Your task to perform on an android device: Search for flights from Chicago to London Image 0: 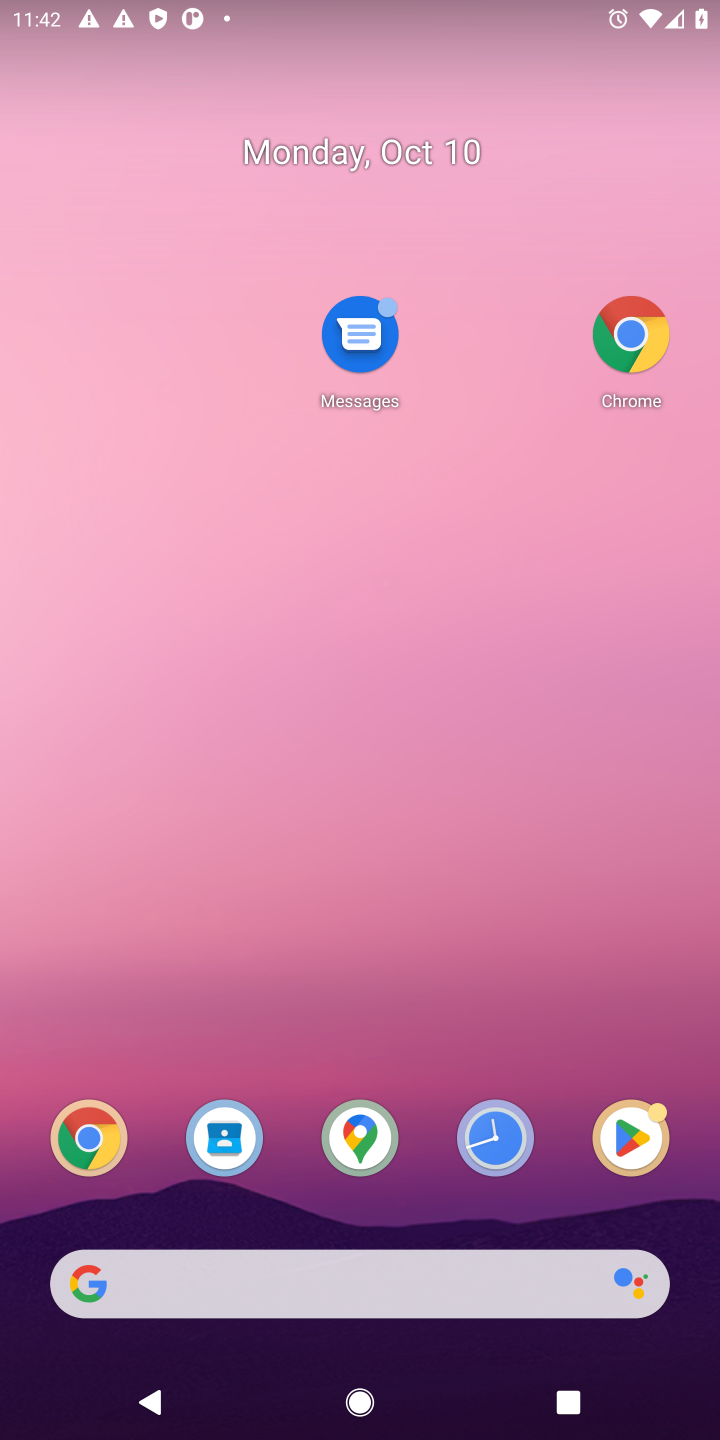
Step 0: click (621, 348)
Your task to perform on an android device: Search for flights from Chicago to London Image 1: 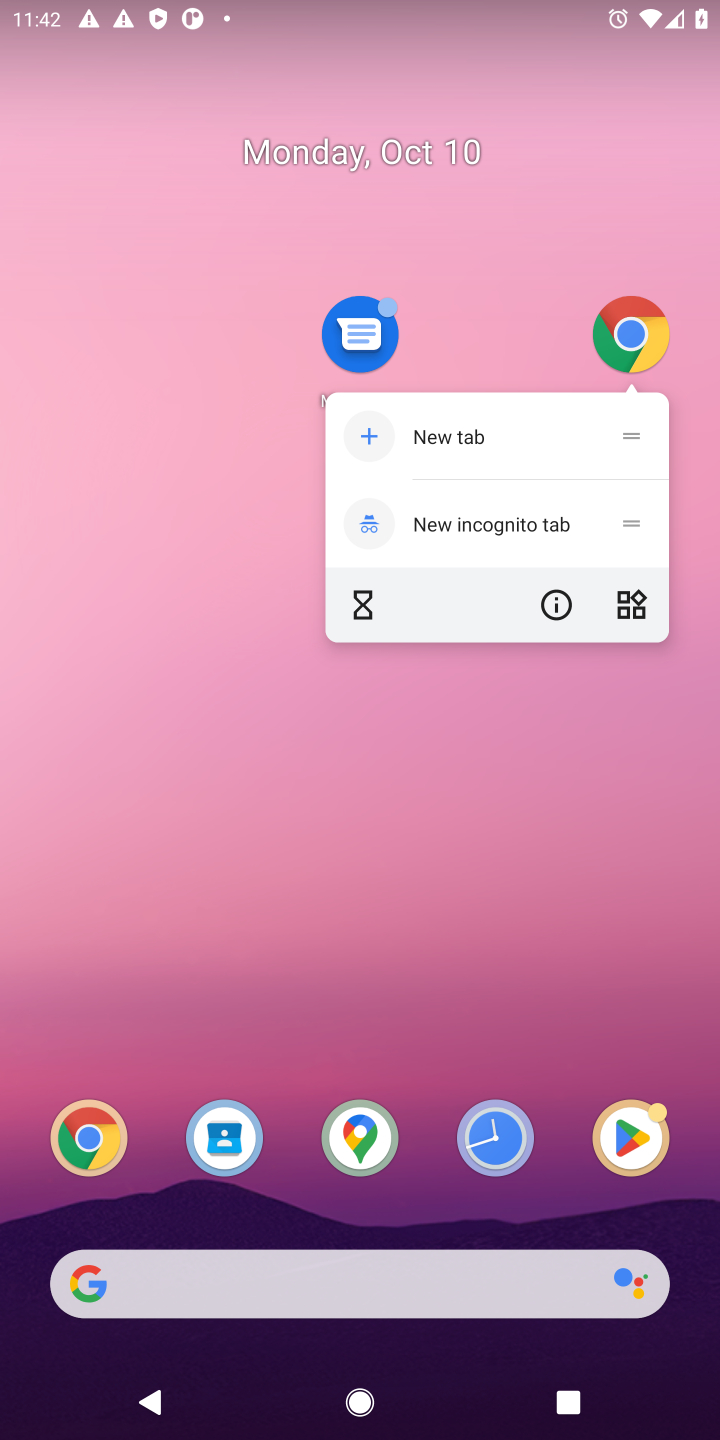
Step 1: click (545, 901)
Your task to perform on an android device: Search for flights from Chicago to London Image 2: 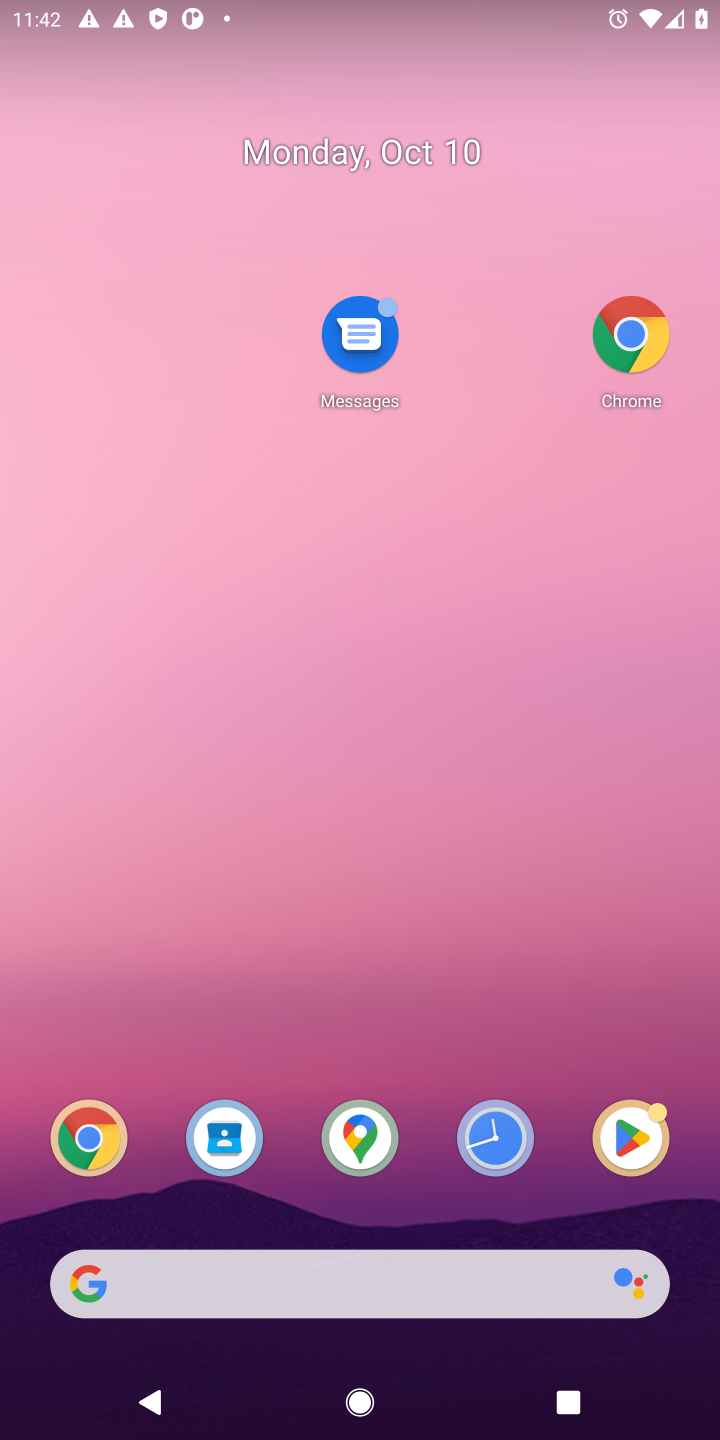
Step 2: drag from (466, 1354) to (478, 580)
Your task to perform on an android device: Search for flights from Chicago to London Image 3: 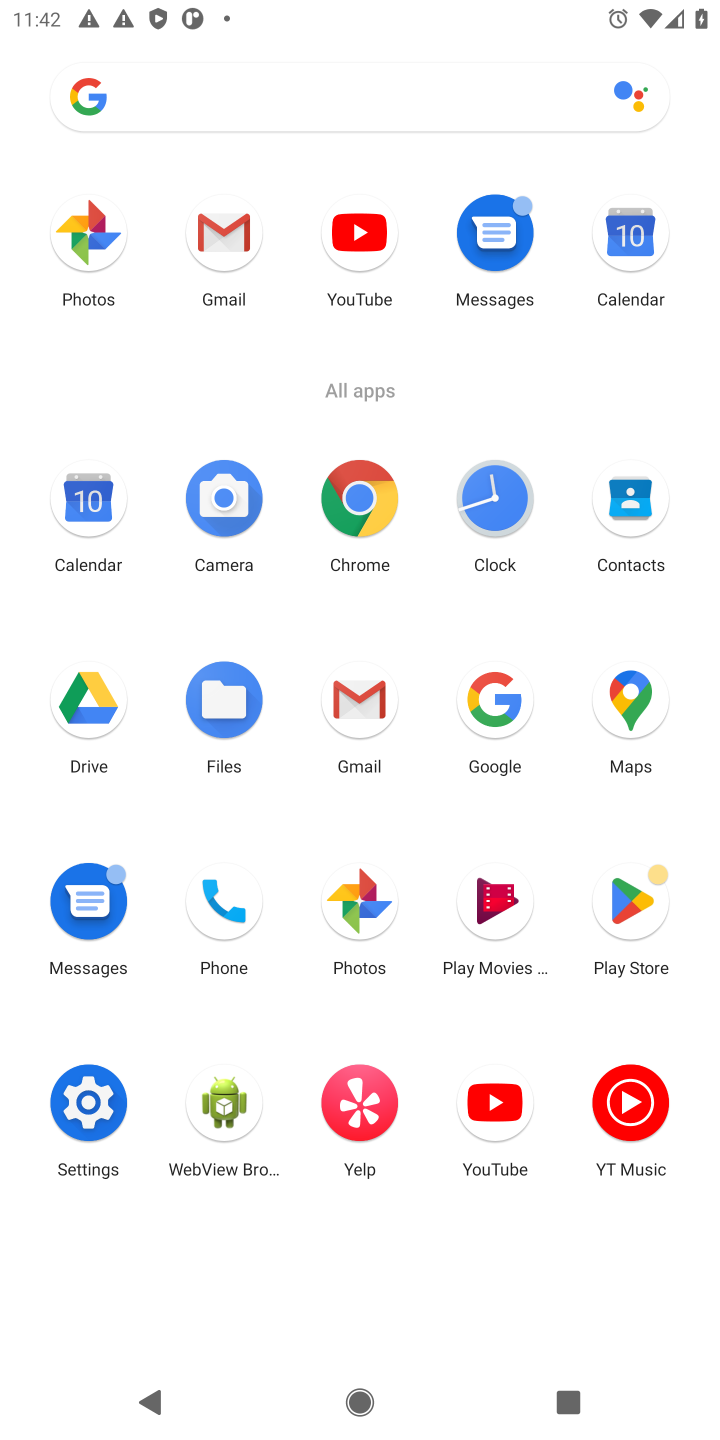
Step 3: click (369, 517)
Your task to perform on an android device: Search for flights from Chicago to London Image 4: 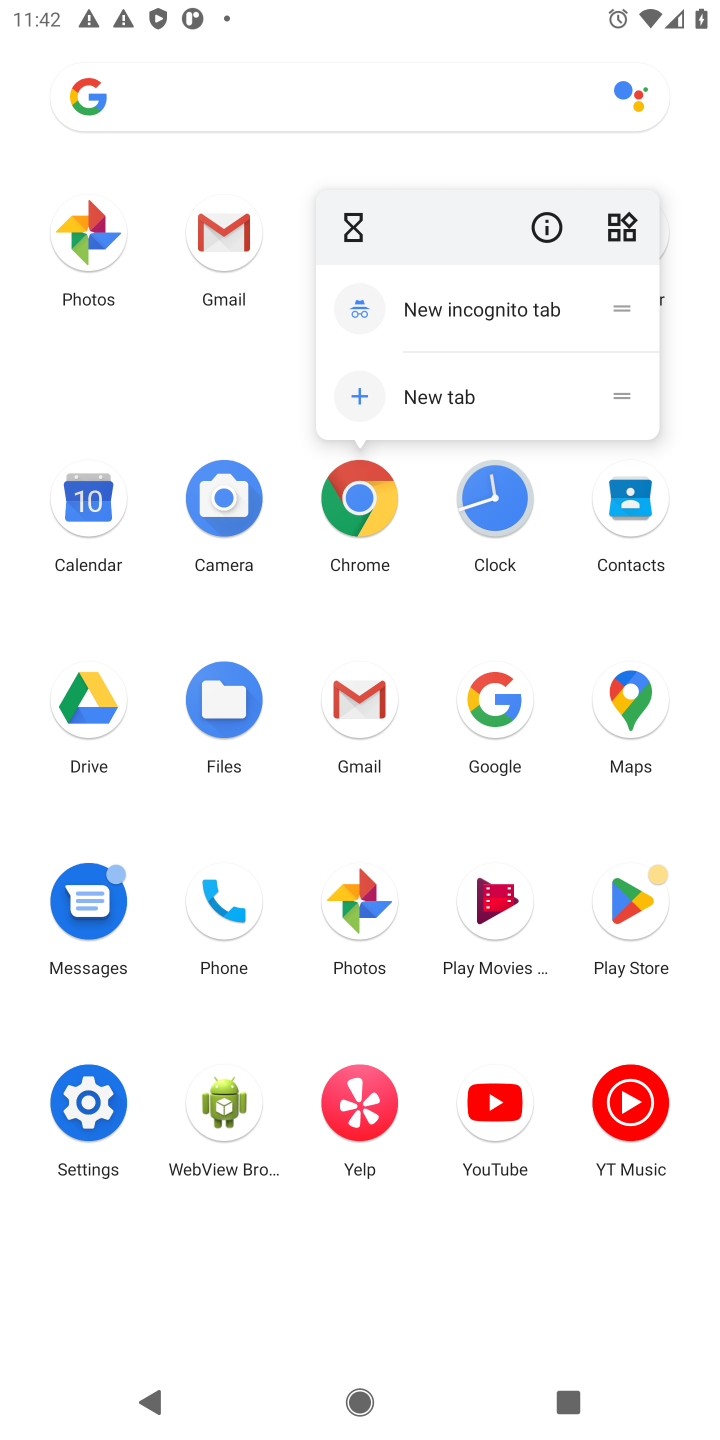
Step 4: click (353, 510)
Your task to perform on an android device: Search for flights from Chicago to London Image 5: 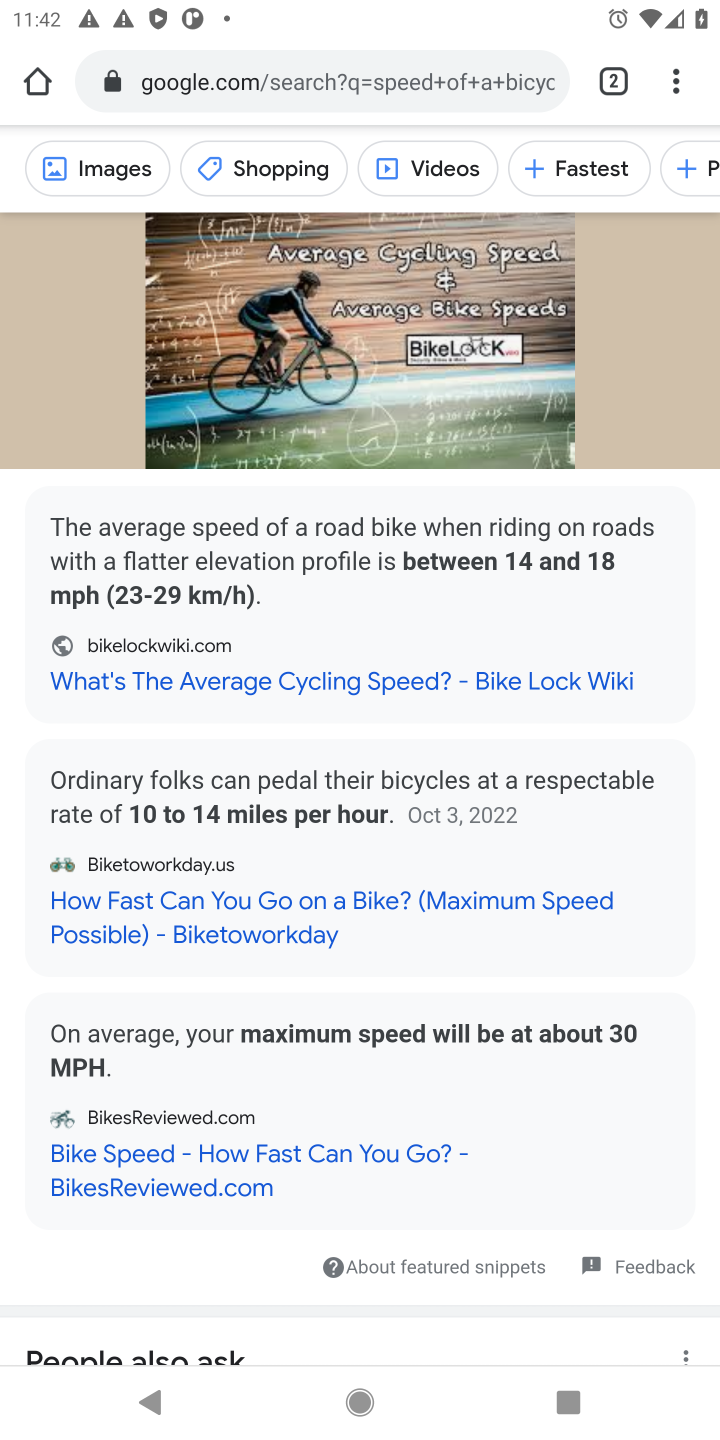
Step 5: click (360, 91)
Your task to perform on an android device: Search for flights from Chicago to London Image 6: 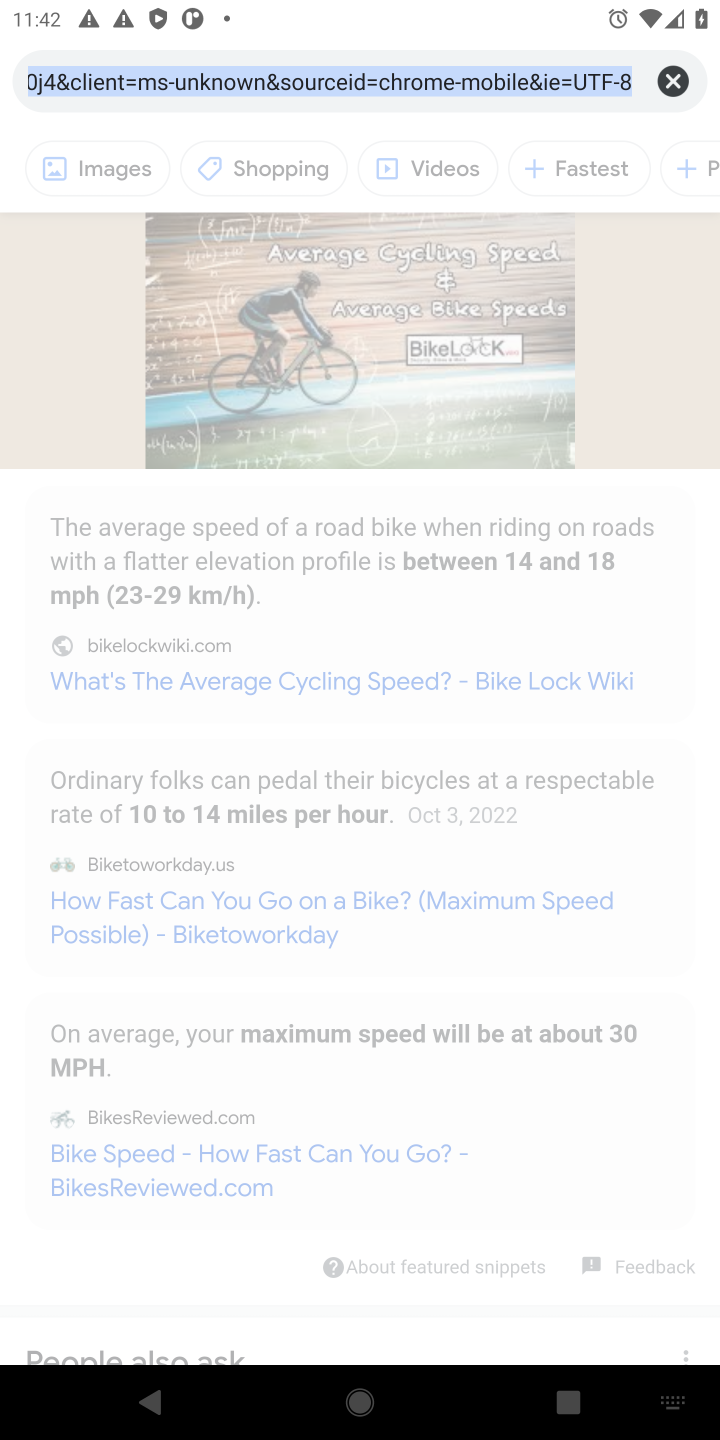
Step 6: type "flights from Chicago to London"
Your task to perform on an android device: Search for flights from Chicago to London Image 7: 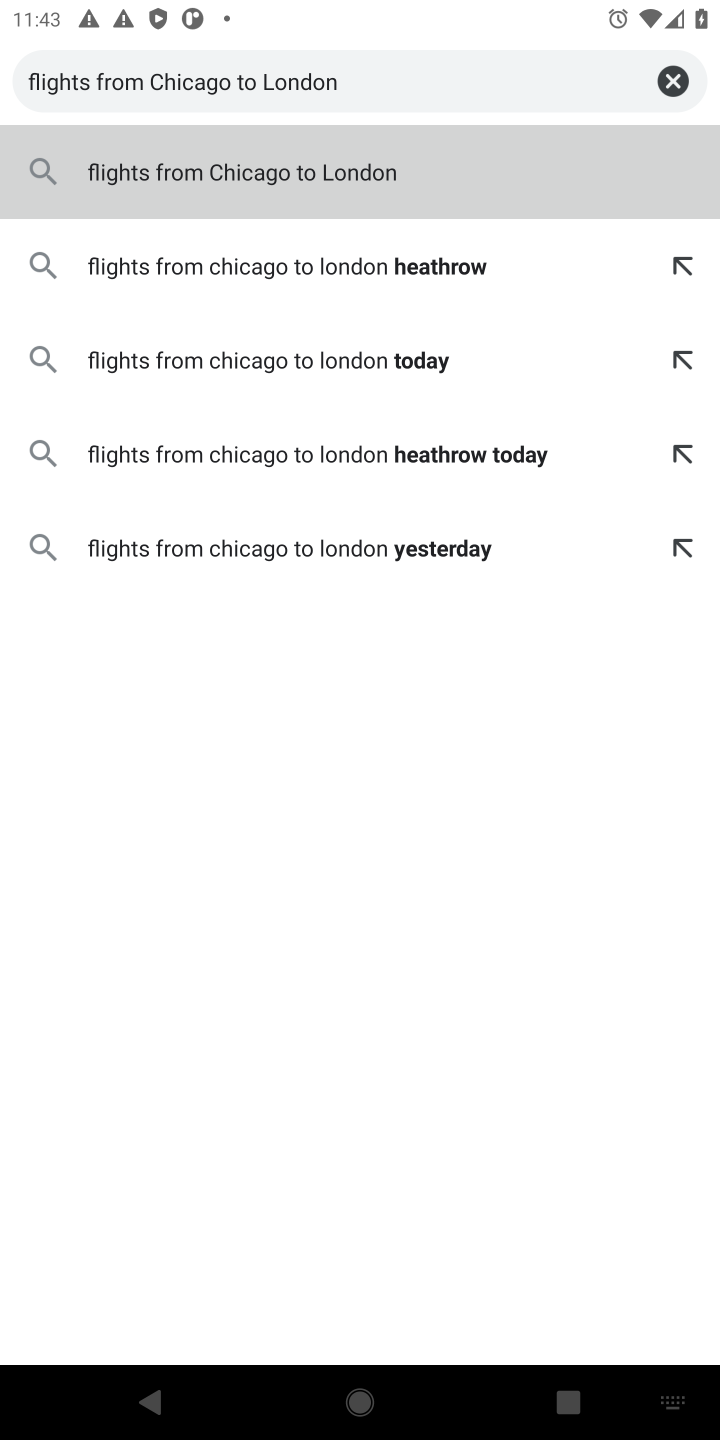
Step 7: press enter
Your task to perform on an android device: Search for flights from Chicago to London Image 8: 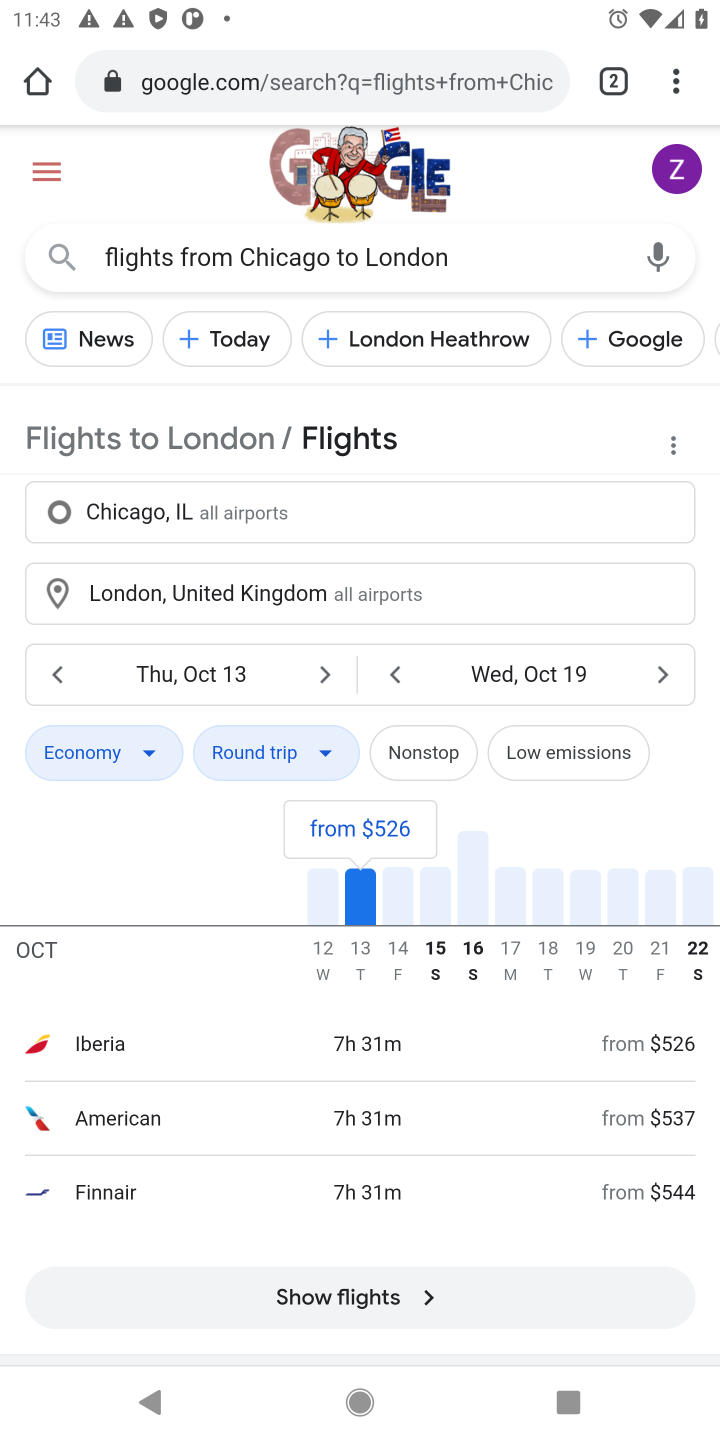
Step 8: drag from (595, 1133) to (592, 726)
Your task to perform on an android device: Search for flights from Chicago to London Image 9: 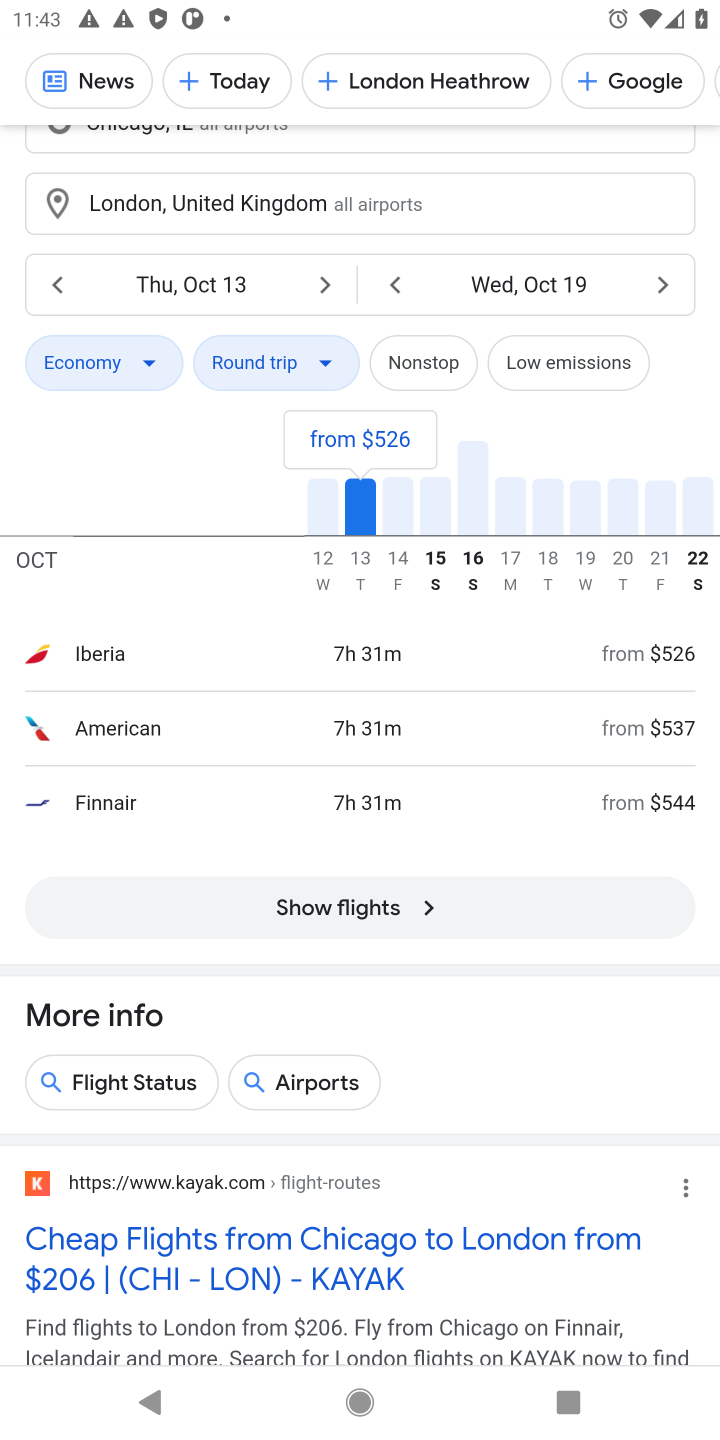
Step 9: click (399, 1000)
Your task to perform on an android device: Search for flights from Chicago to London Image 10: 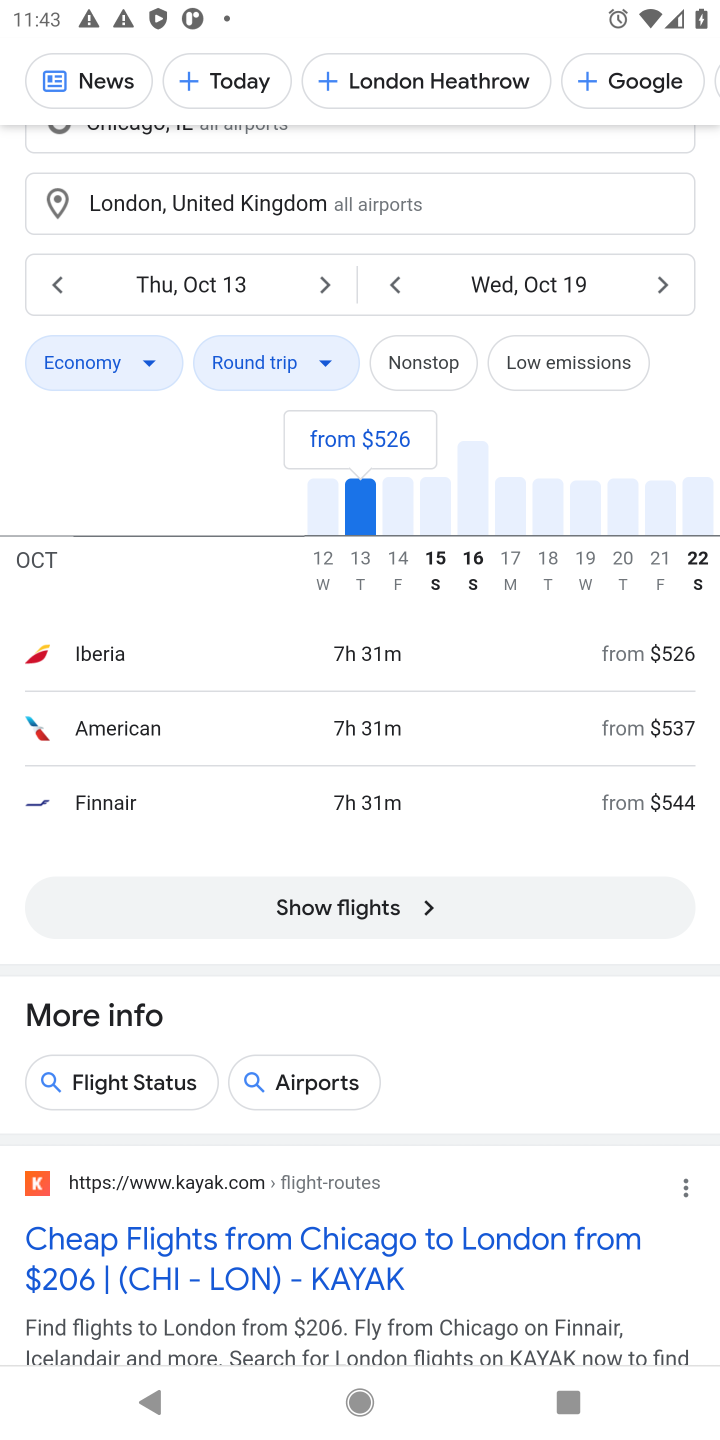
Step 10: click (413, 913)
Your task to perform on an android device: Search for flights from Chicago to London Image 11: 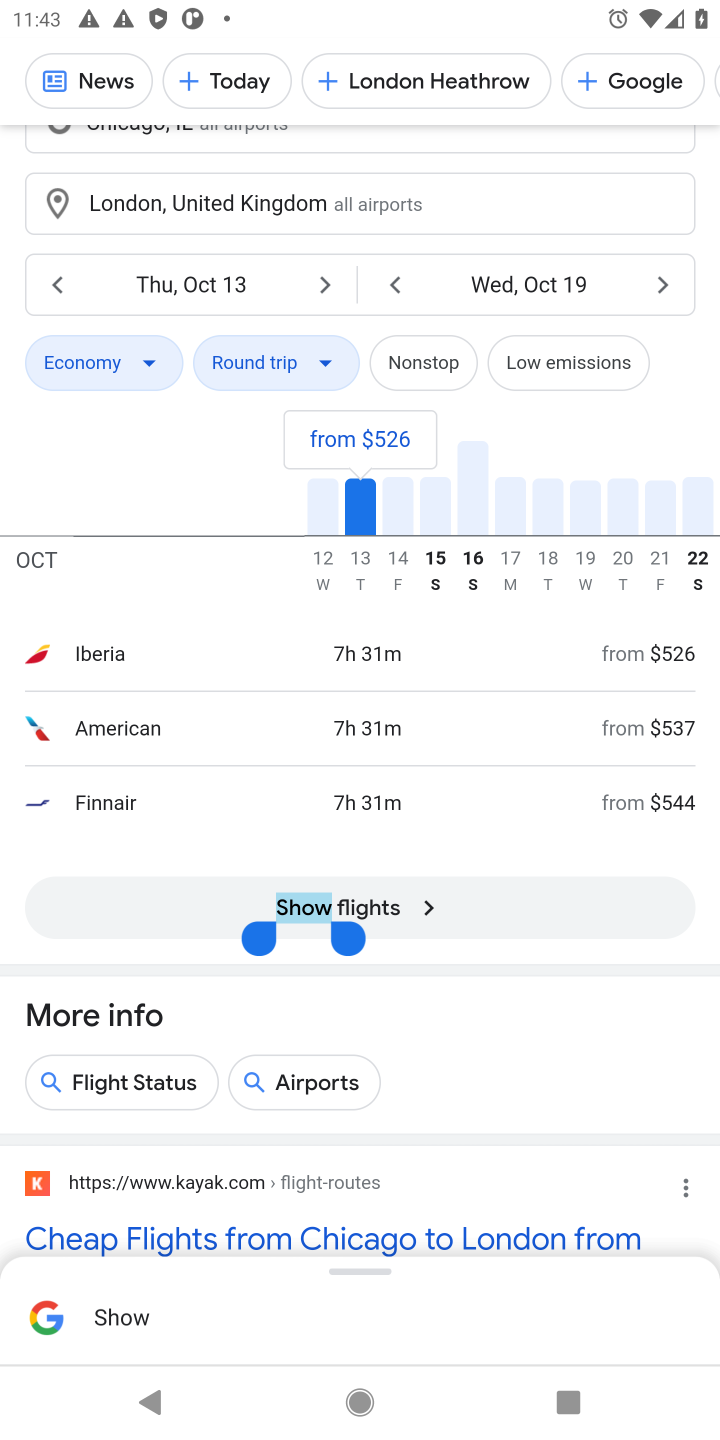
Step 11: click (454, 913)
Your task to perform on an android device: Search for flights from Chicago to London Image 12: 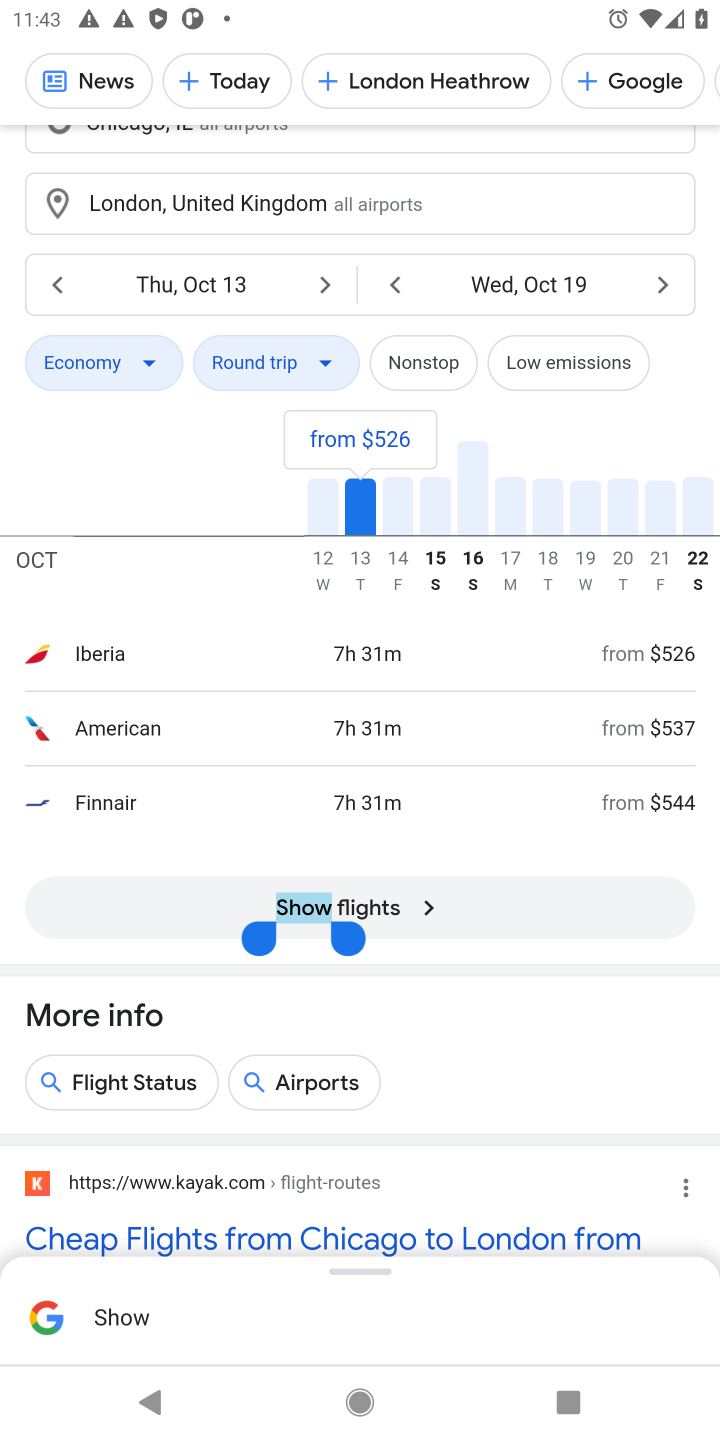
Step 12: click (401, 912)
Your task to perform on an android device: Search for flights from Chicago to London Image 13: 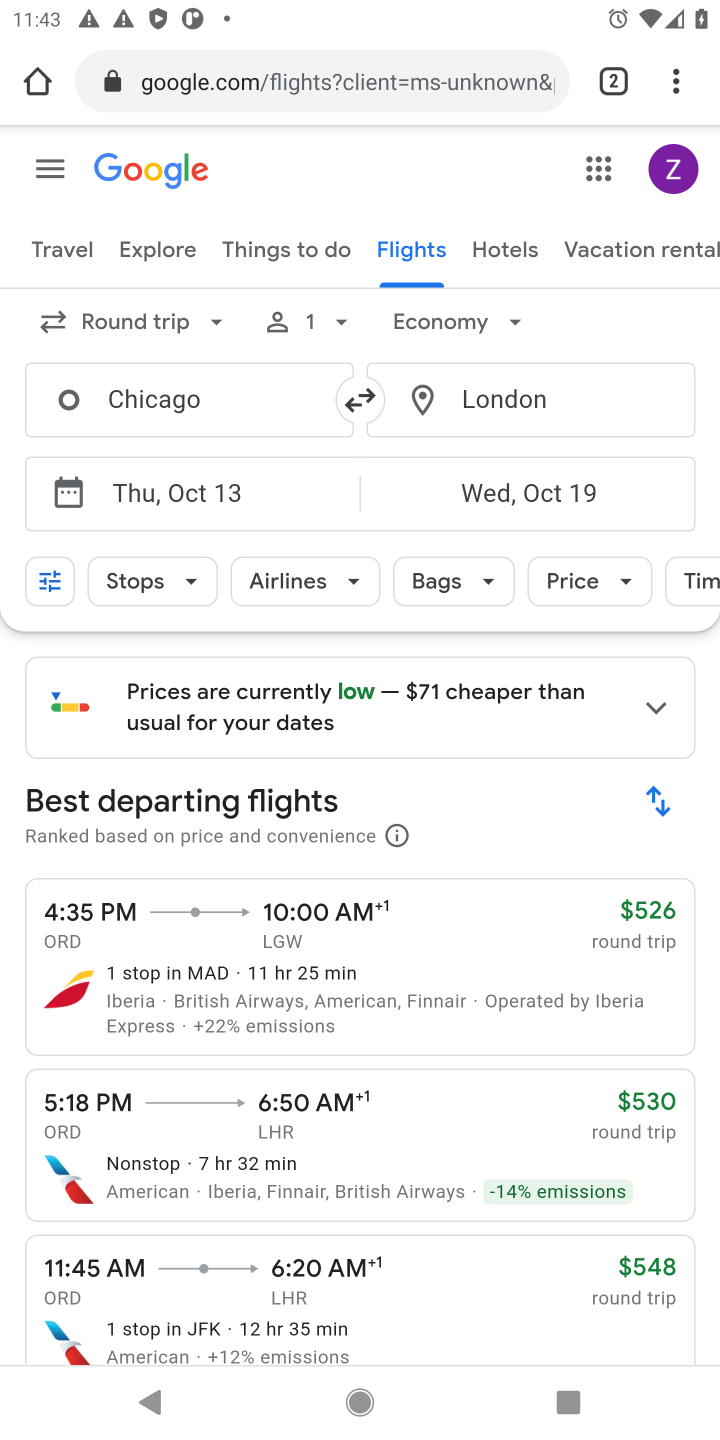
Step 13: task complete